Your task to perform on an android device: check storage Image 0: 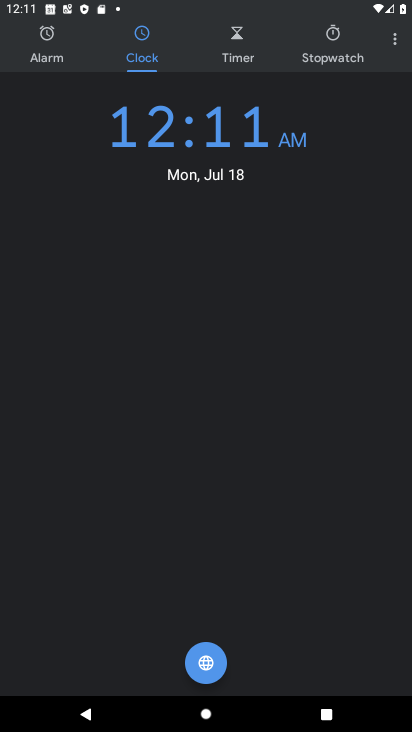
Step 0: press home button
Your task to perform on an android device: check storage Image 1: 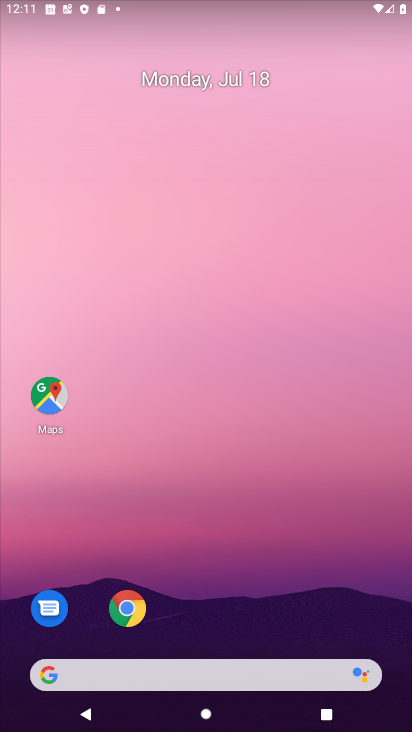
Step 1: drag from (277, 631) to (320, 132)
Your task to perform on an android device: check storage Image 2: 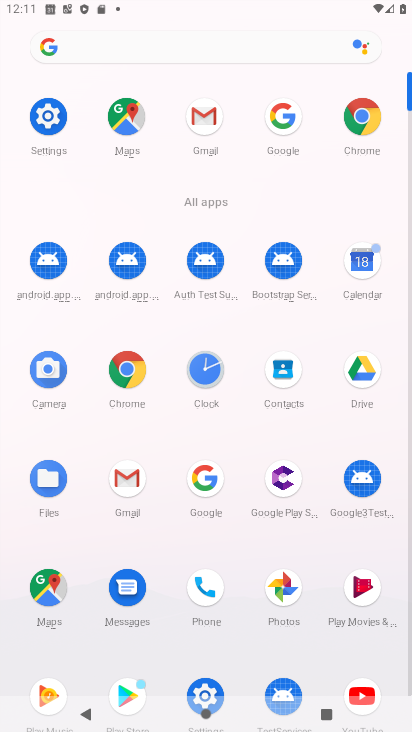
Step 2: click (56, 109)
Your task to perform on an android device: check storage Image 3: 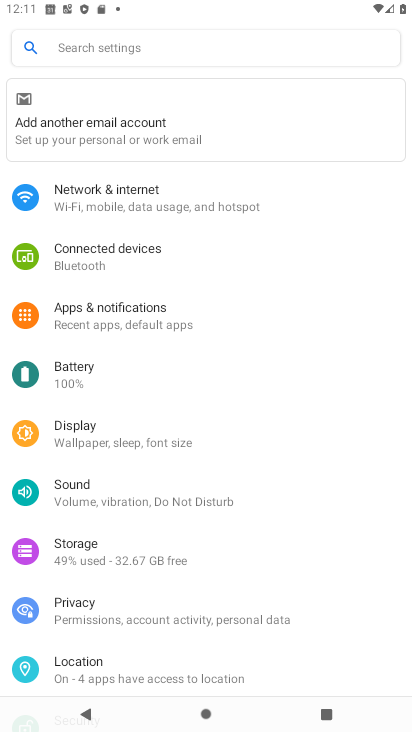
Step 3: click (117, 543)
Your task to perform on an android device: check storage Image 4: 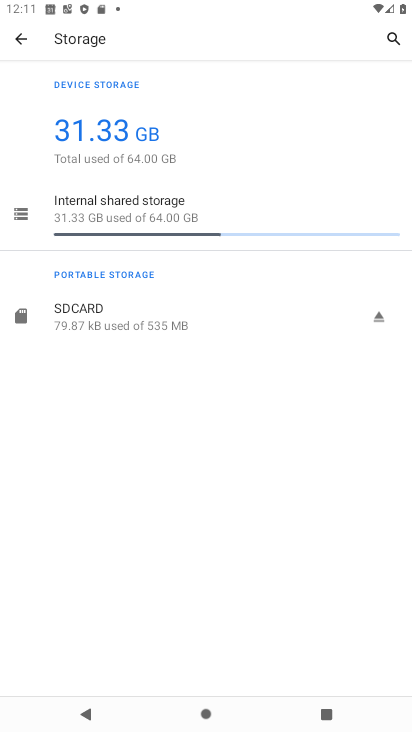
Step 4: task complete